Your task to perform on an android device: star an email in the gmail app Image 0: 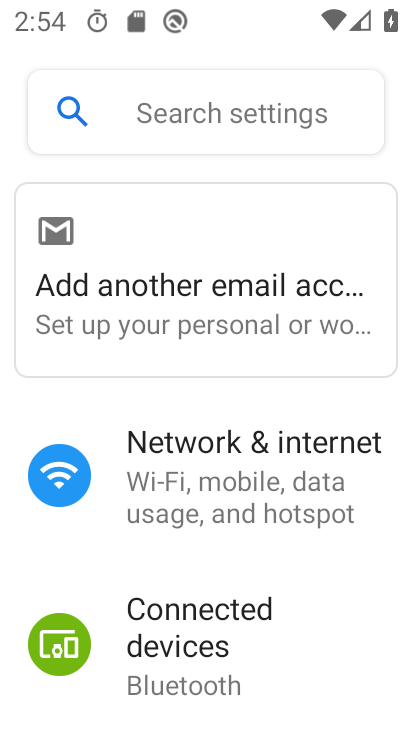
Step 0: press home button
Your task to perform on an android device: star an email in the gmail app Image 1: 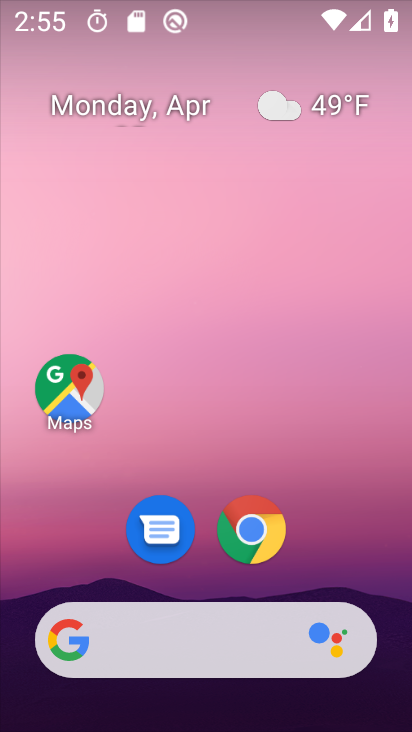
Step 1: drag from (383, 502) to (364, 179)
Your task to perform on an android device: star an email in the gmail app Image 2: 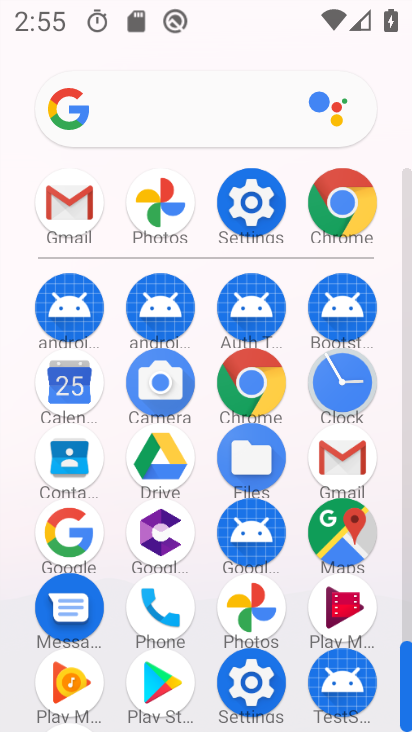
Step 2: click (336, 458)
Your task to perform on an android device: star an email in the gmail app Image 3: 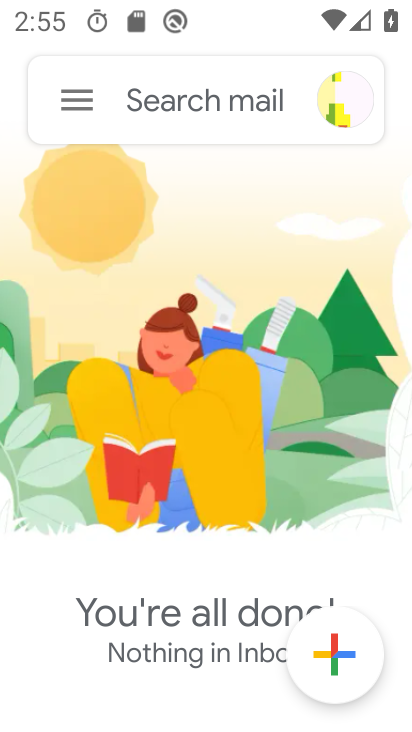
Step 3: click (63, 102)
Your task to perform on an android device: star an email in the gmail app Image 4: 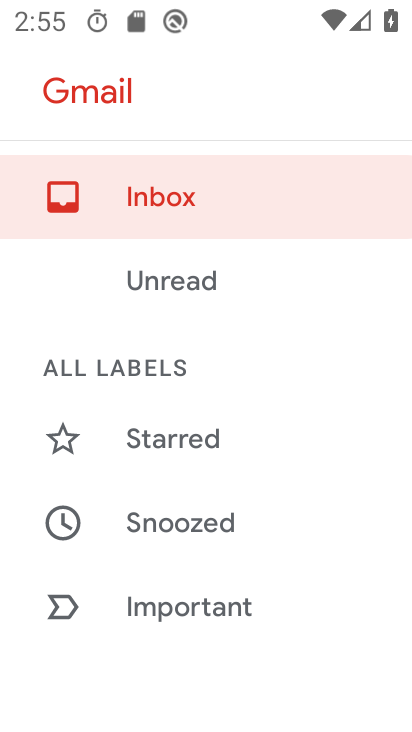
Step 4: click (133, 196)
Your task to perform on an android device: star an email in the gmail app Image 5: 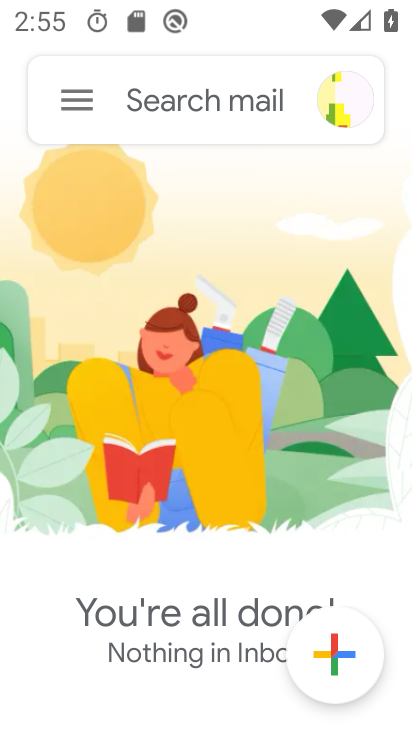
Step 5: task complete